Your task to perform on an android device: Search for "logitech g pro" on amazon, select the first entry, and add it to the cart. Image 0: 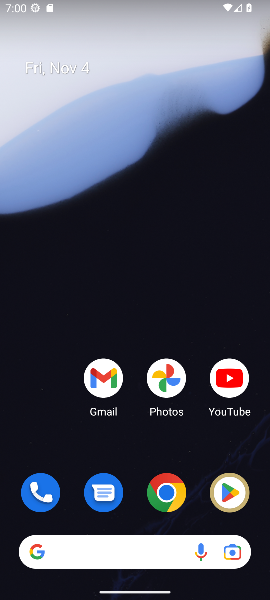
Step 0: drag from (142, 450) to (144, 49)
Your task to perform on an android device: Search for "logitech g pro" on amazon, select the first entry, and add it to the cart. Image 1: 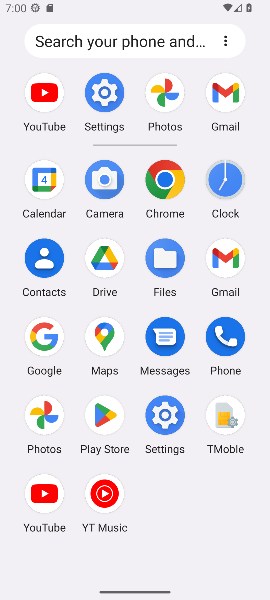
Step 1: click (163, 178)
Your task to perform on an android device: Search for "logitech g pro" on amazon, select the first entry, and add it to the cart. Image 2: 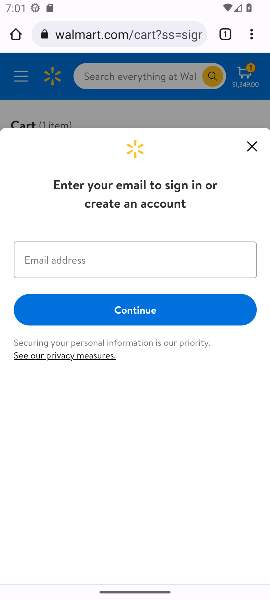
Step 2: click (144, 36)
Your task to perform on an android device: Search for "logitech g pro" on amazon, select the first entry, and add it to the cart. Image 3: 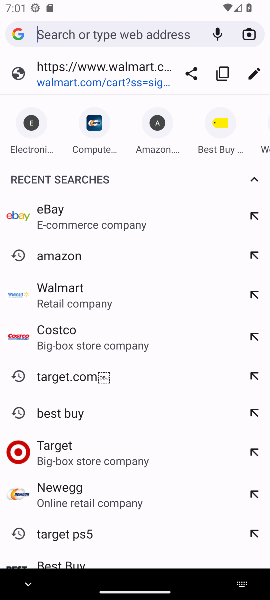
Step 3: type "amazon.com"
Your task to perform on an android device: Search for "logitech g pro" on amazon, select the first entry, and add it to the cart. Image 4: 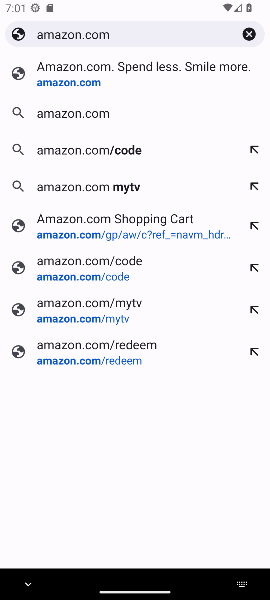
Step 4: press enter
Your task to perform on an android device: Search for "logitech g pro" on amazon, select the first entry, and add it to the cart. Image 5: 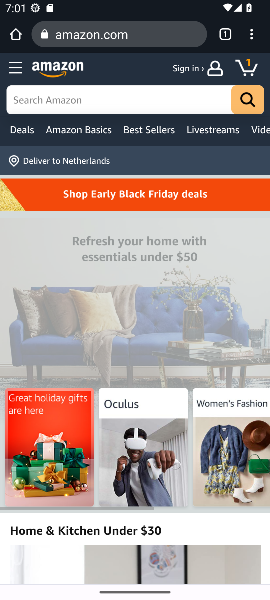
Step 5: click (163, 109)
Your task to perform on an android device: Search for "logitech g pro" on amazon, select the first entry, and add it to the cart. Image 6: 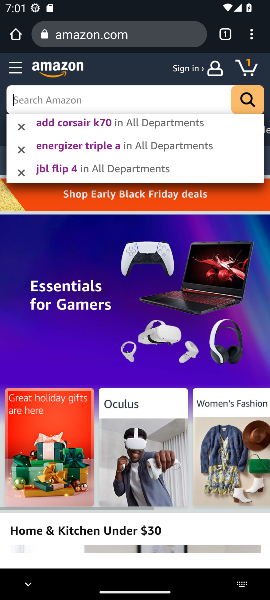
Step 6: type "logitech g pro"
Your task to perform on an android device: Search for "logitech g pro" on amazon, select the first entry, and add it to the cart. Image 7: 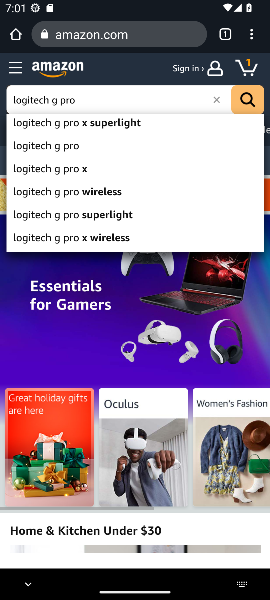
Step 7: press enter
Your task to perform on an android device: Search for "logitech g pro" on amazon, select the first entry, and add it to the cart. Image 8: 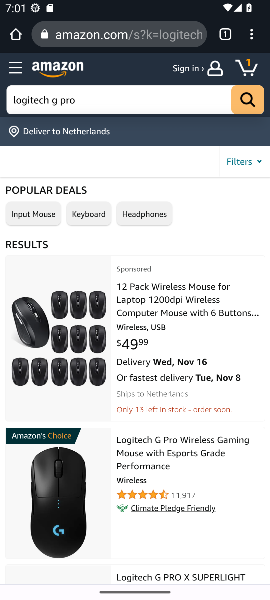
Step 8: drag from (158, 430) to (177, 286)
Your task to perform on an android device: Search for "logitech g pro" on amazon, select the first entry, and add it to the cart. Image 9: 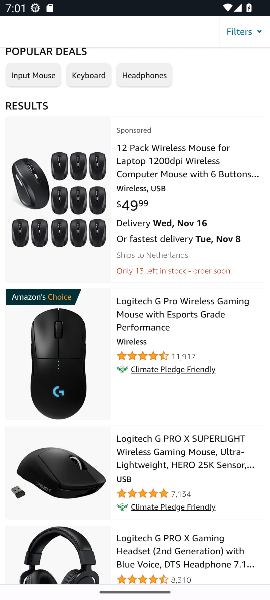
Step 9: click (155, 312)
Your task to perform on an android device: Search for "logitech g pro" on amazon, select the first entry, and add it to the cart. Image 10: 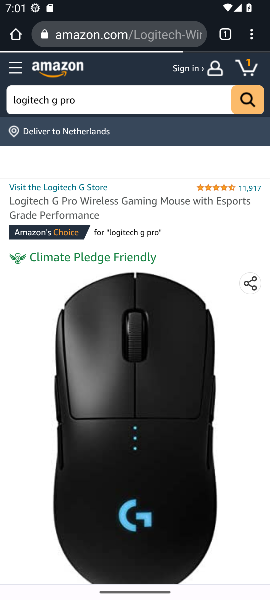
Step 10: task complete